Your task to perform on an android device: What's the news about the US economy? Image 0: 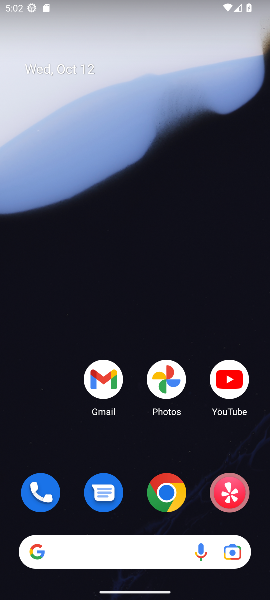
Step 0: click (169, 498)
Your task to perform on an android device: What's the news about the US economy? Image 1: 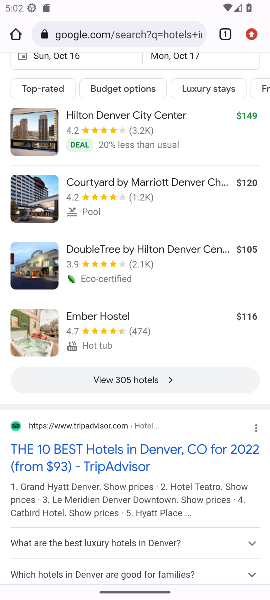
Step 1: click (101, 39)
Your task to perform on an android device: What's the news about the US economy? Image 2: 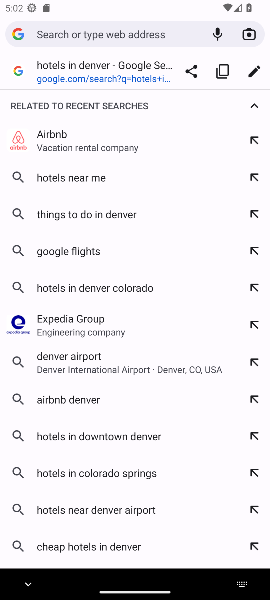
Step 2: type " US economy"
Your task to perform on an android device: What's the news about the US economy? Image 3: 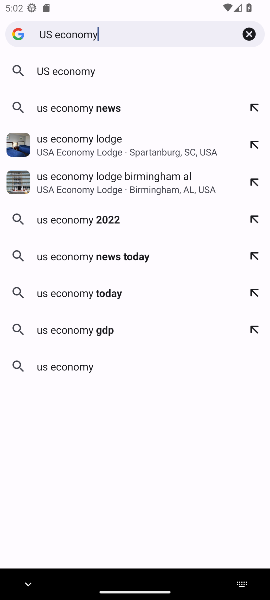
Step 3: click (62, 74)
Your task to perform on an android device: What's the news about the US economy? Image 4: 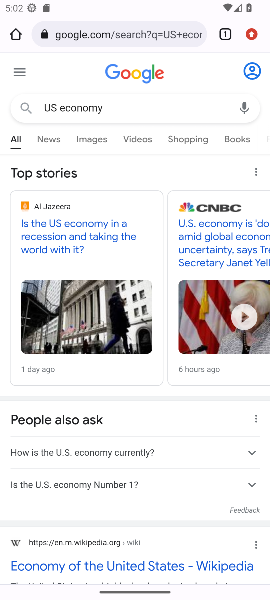
Step 4: click (52, 137)
Your task to perform on an android device: What's the news about the US economy? Image 5: 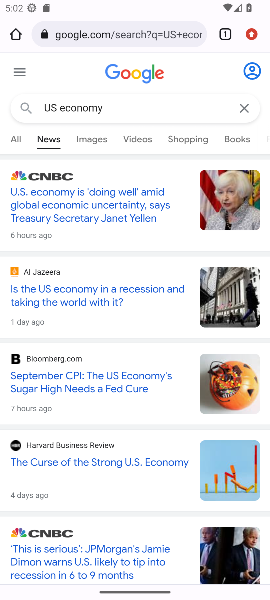
Step 5: click (57, 207)
Your task to perform on an android device: What's the news about the US economy? Image 6: 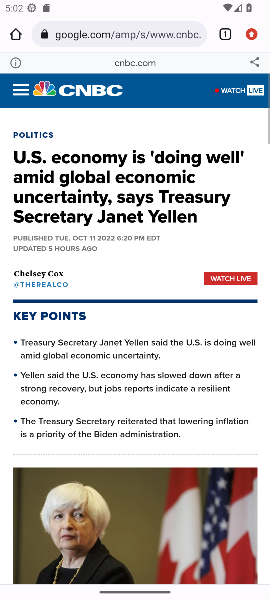
Step 6: task complete